Your task to perform on an android device: Go to Wikipedia Image 0: 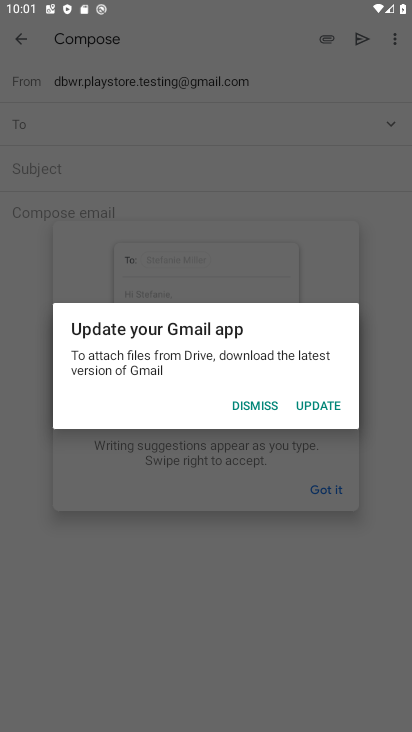
Step 0: press home button
Your task to perform on an android device: Go to Wikipedia Image 1: 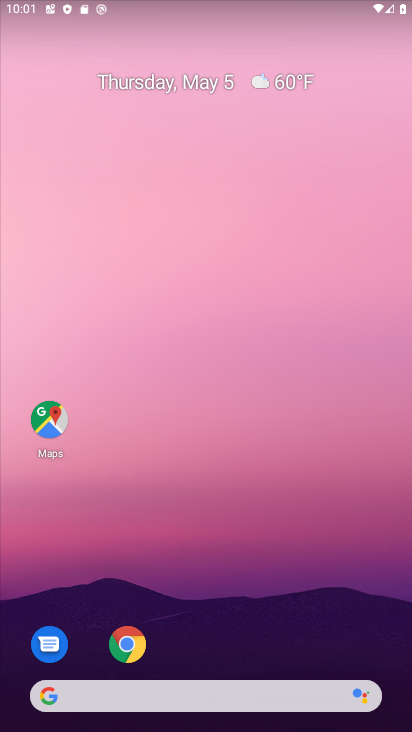
Step 1: click (129, 644)
Your task to perform on an android device: Go to Wikipedia Image 2: 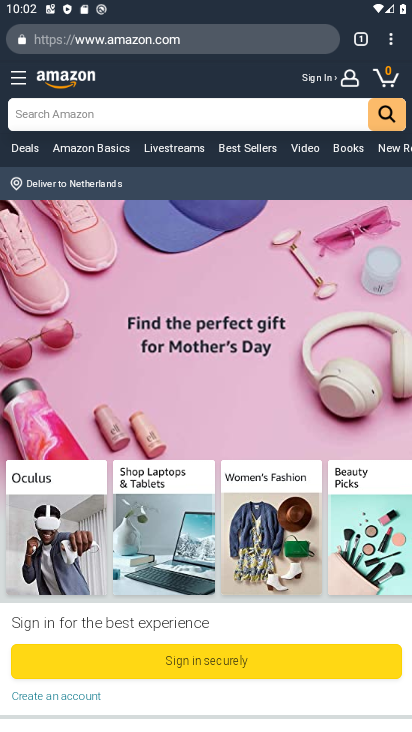
Step 2: click (154, 28)
Your task to perform on an android device: Go to Wikipedia Image 3: 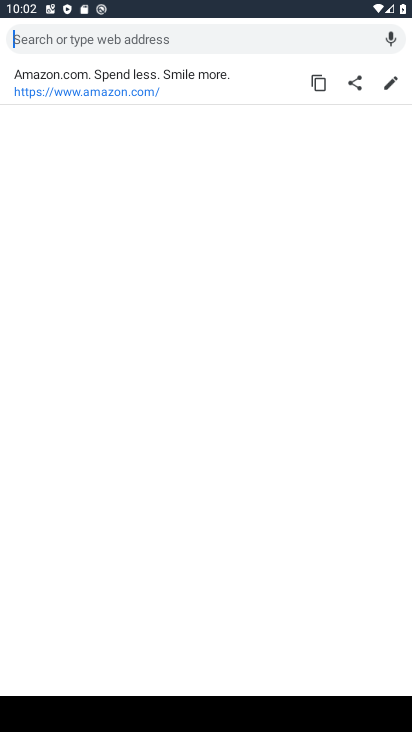
Step 3: type "wikipedia"
Your task to perform on an android device: Go to Wikipedia Image 4: 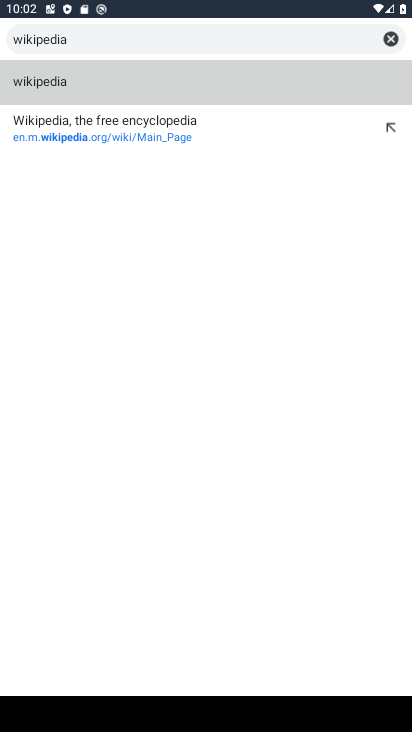
Step 4: click (45, 80)
Your task to perform on an android device: Go to Wikipedia Image 5: 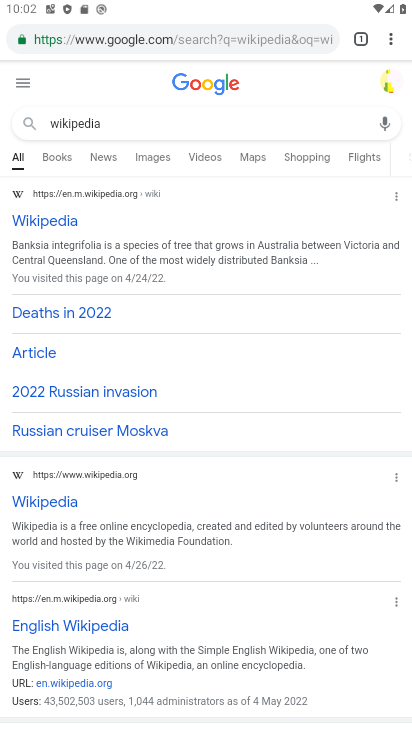
Step 5: click (57, 226)
Your task to perform on an android device: Go to Wikipedia Image 6: 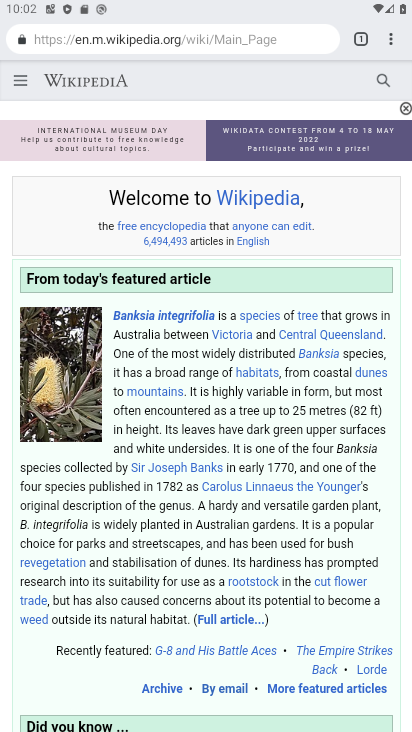
Step 6: task complete